Your task to perform on an android device: Open battery settings Image 0: 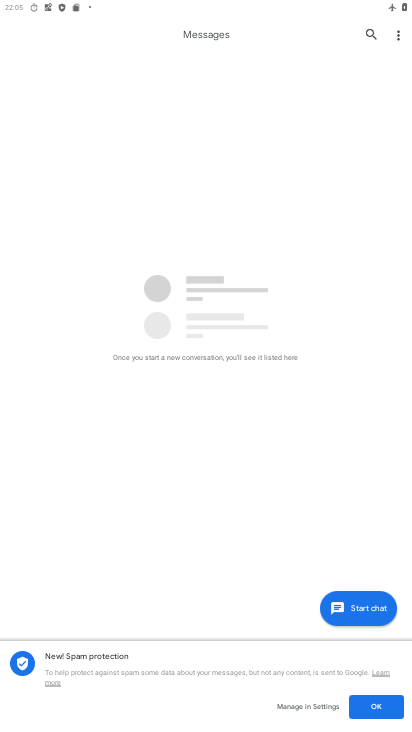
Step 0: press home button
Your task to perform on an android device: Open battery settings Image 1: 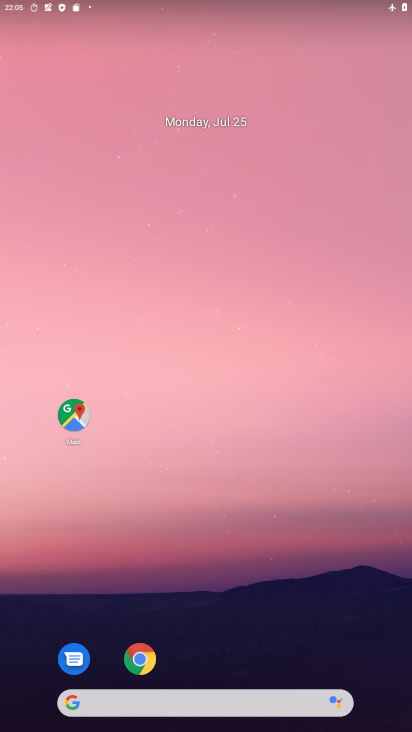
Step 1: drag from (215, 656) to (246, 210)
Your task to perform on an android device: Open battery settings Image 2: 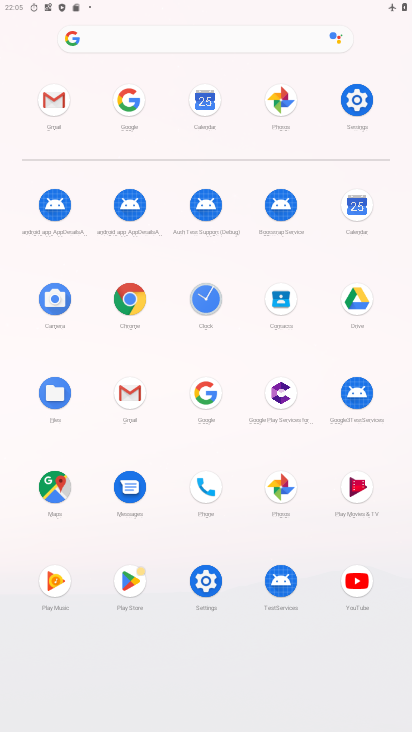
Step 2: click (352, 102)
Your task to perform on an android device: Open battery settings Image 3: 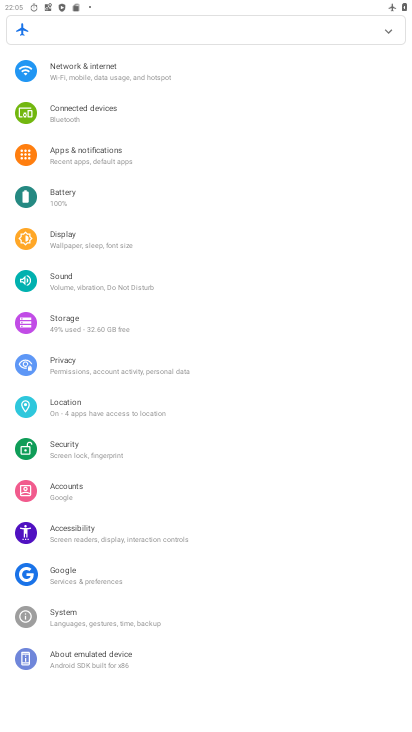
Step 3: click (97, 204)
Your task to perform on an android device: Open battery settings Image 4: 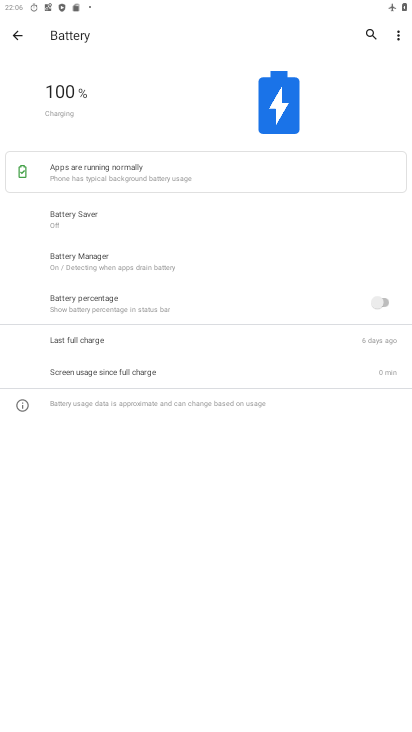
Step 4: task complete